Your task to perform on an android device: delete location history Image 0: 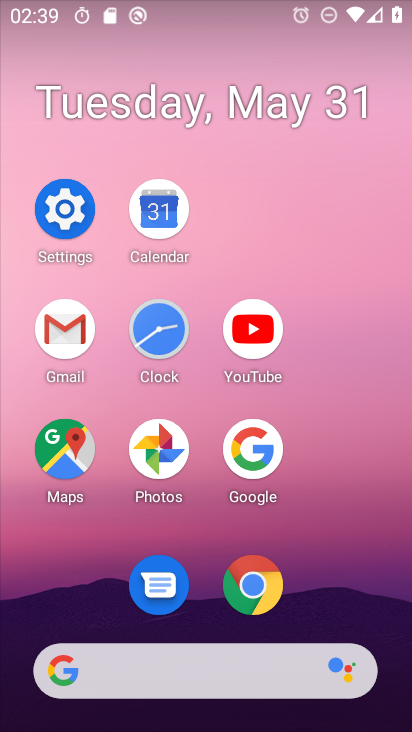
Step 0: click (54, 205)
Your task to perform on an android device: delete location history Image 1: 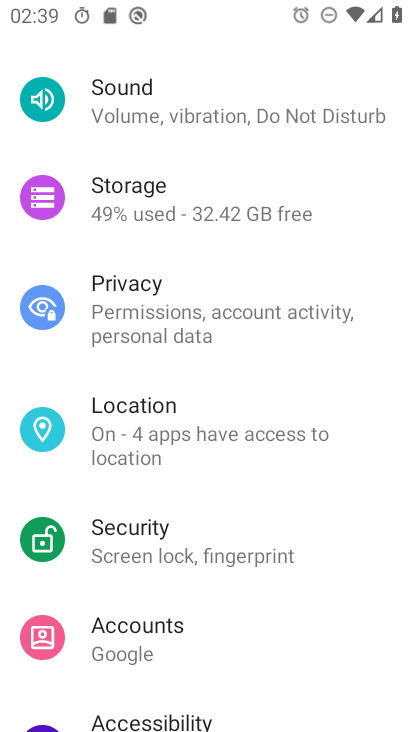
Step 1: click (266, 439)
Your task to perform on an android device: delete location history Image 2: 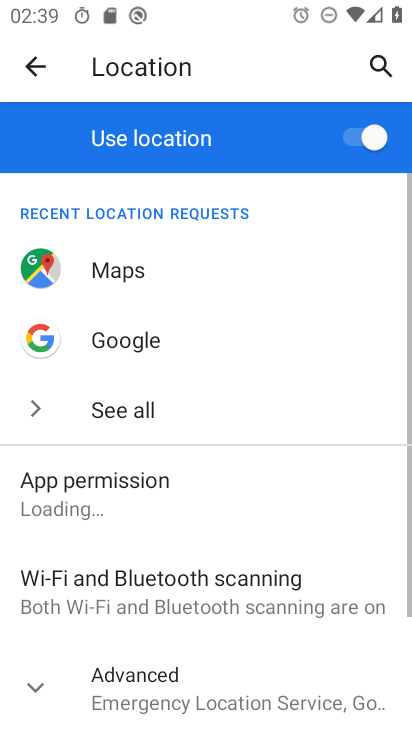
Step 2: drag from (267, 439) to (220, 152)
Your task to perform on an android device: delete location history Image 3: 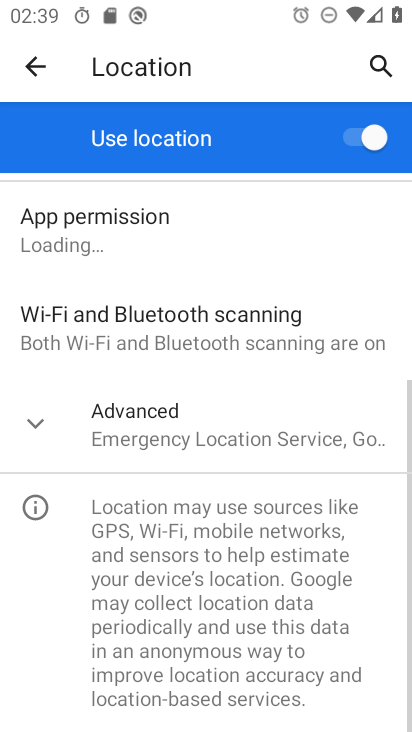
Step 3: click (259, 660)
Your task to perform on an android device: delete location history Image 4: 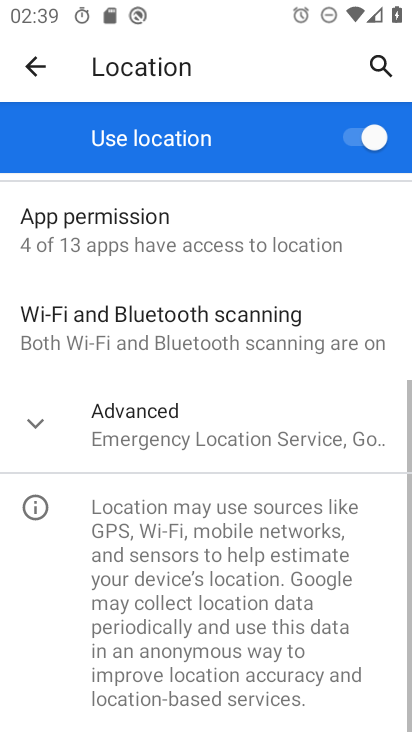
Step 4: click (273, 441)
Your task to perform on an android device: delete location history Image 5: 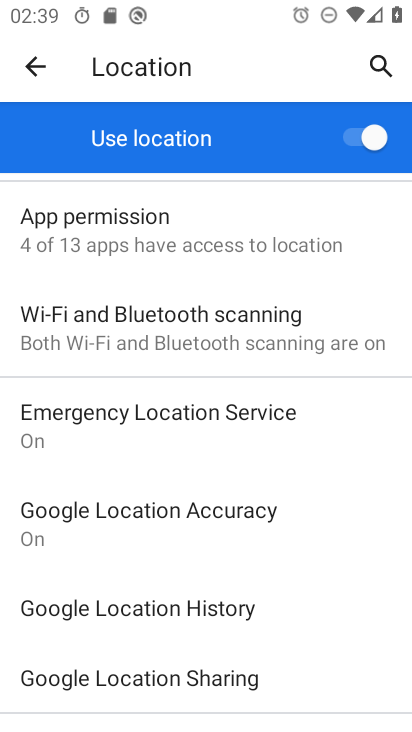
Step 5: click (265, 607)
Your task to perform on an android device: delete location history Image 6: 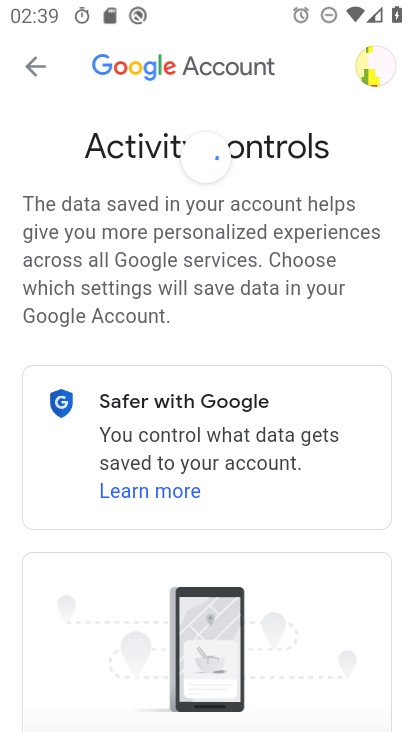
Step 6: drag from (265, 607) to (281, 225)
Your task to perform on an android device: delete location history Image 7: 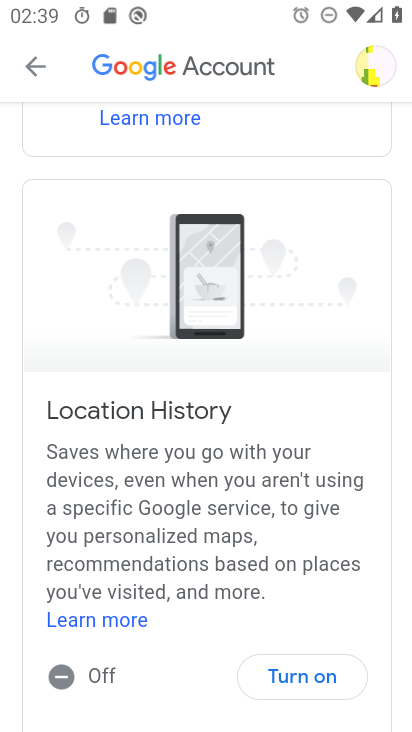
Step 7: drag from (280, 614) to (263, 163)
Your task to perform on an android device: delete location history Image 8: 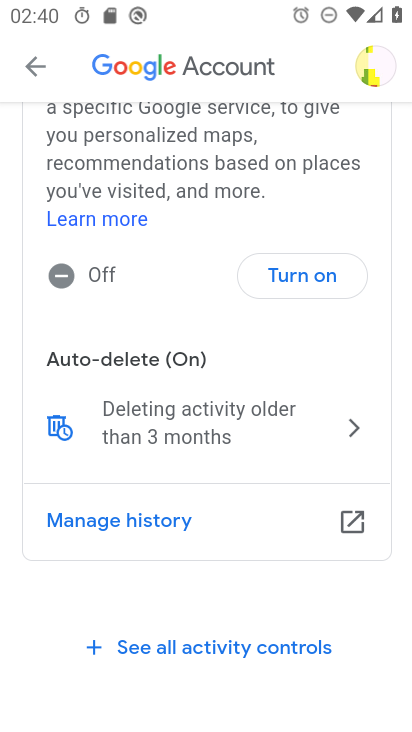
Step 8: drag from (304, 581) to (301, 160)
Your task to perform on an android device: delete location history Image 9: 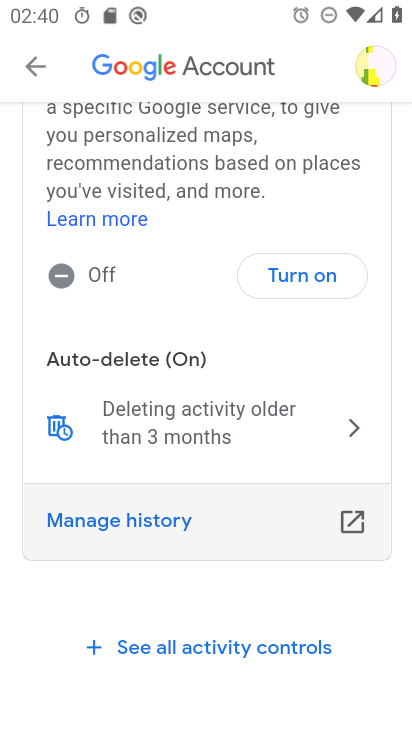
Step 9: click (305, 429)
Your task to perform on an android device: delete location history Image 10: 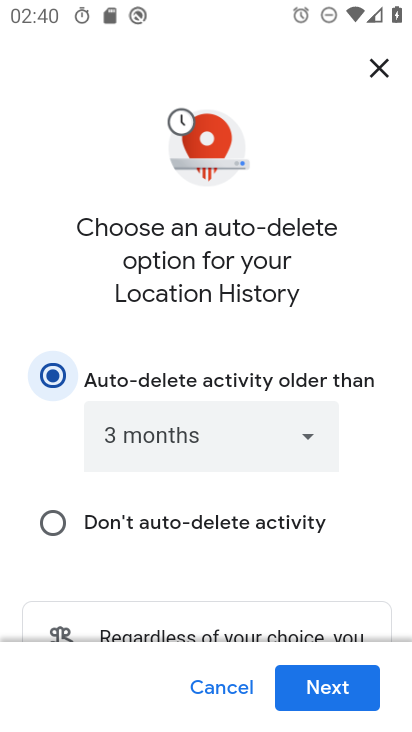
Step 10: drag from (278, 555) to (234, 117)
Your task to perform on an android device: delete location history Image 11: 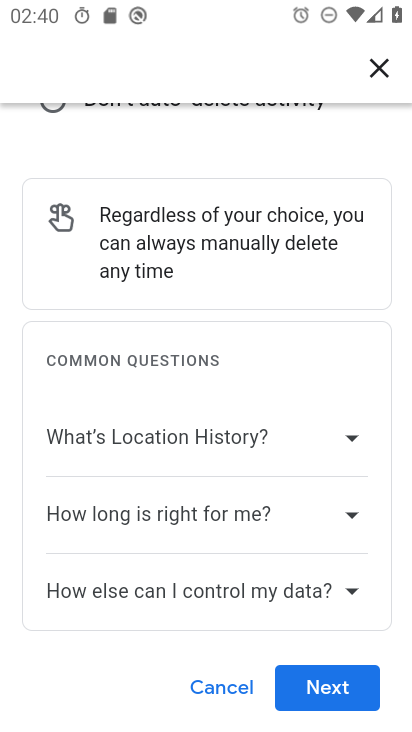
Step 11: click (323, 674)
Your task to perform on an android device: delete location history Image 12: 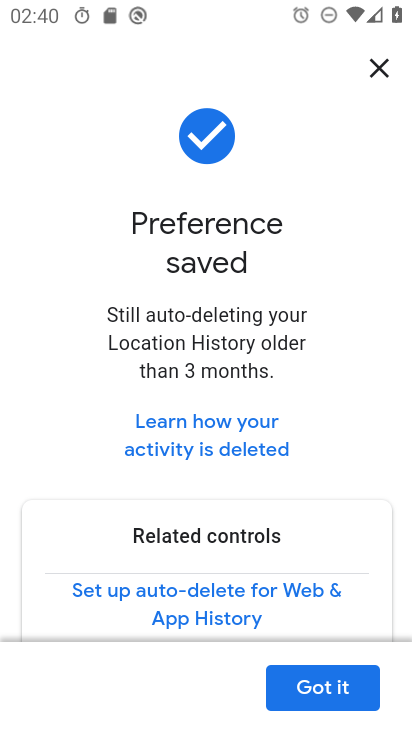
Step 12: click (323, 674)
Your task to perform on an android device: delete location history Image 13: 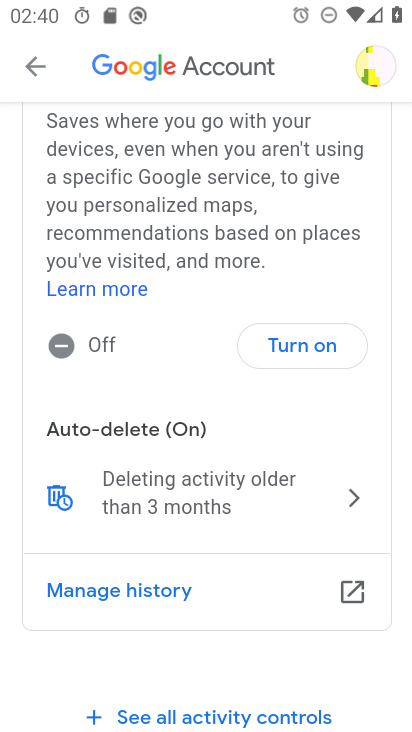
Step 13: task complete